Your task to perform on an android device: toggle show notifications on the lock screen Image 0: 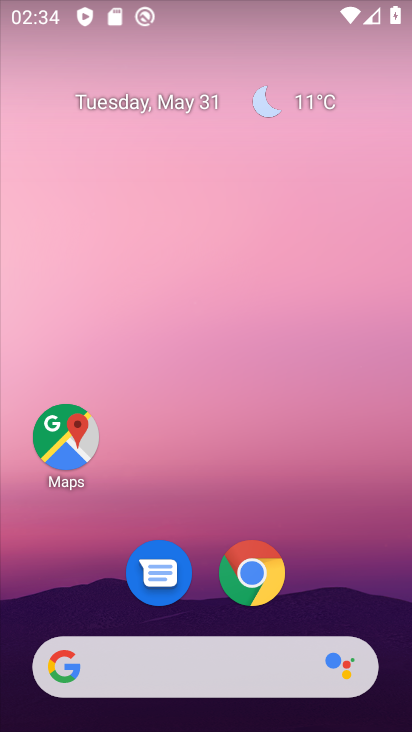
Step 0: drag from (376, 610) to (302, 127)
Your task to perform on an android device: toggle show notifications on the lock screen Image 1: 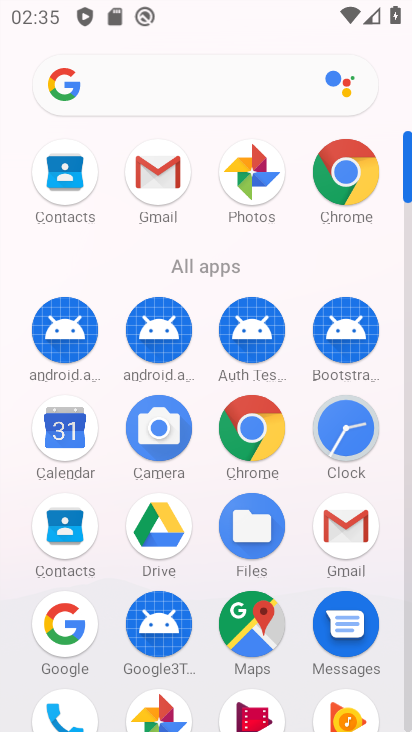
Step 1: click (407, 659)
Your task to perform on an android device: toggle show notifications on the lock screen Image 2: 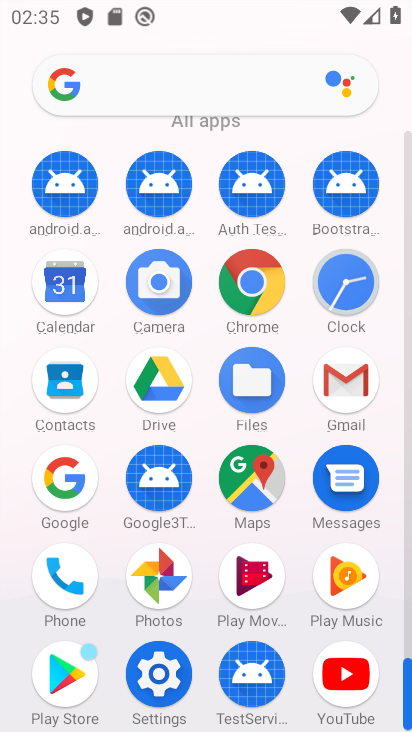
Step 2: click (166, 685)
Your task to perform on an android device: toggle show notifications on the lock screen Image 3: 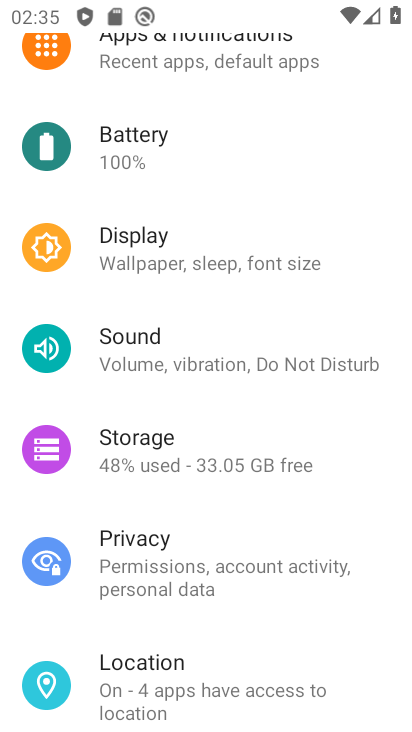
Step 3: click (228, 53)
Your task to perform on an android device: toggle show notifications on the lock screen Image 4: 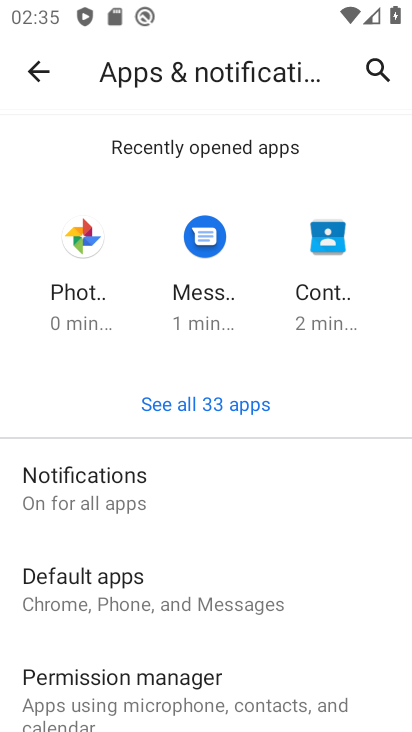
Step 4: click (249, 473)
Your task to perform on an android device: toggle show notifications on the lock screen Image 5: 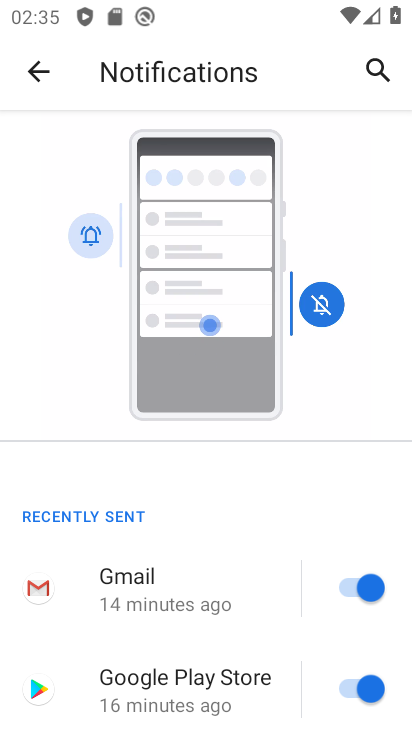
Step 5: drag from (269, 669) to (232, 63)
Your task to perform on an android device: toggle show notifications on the lock screen Image 6: 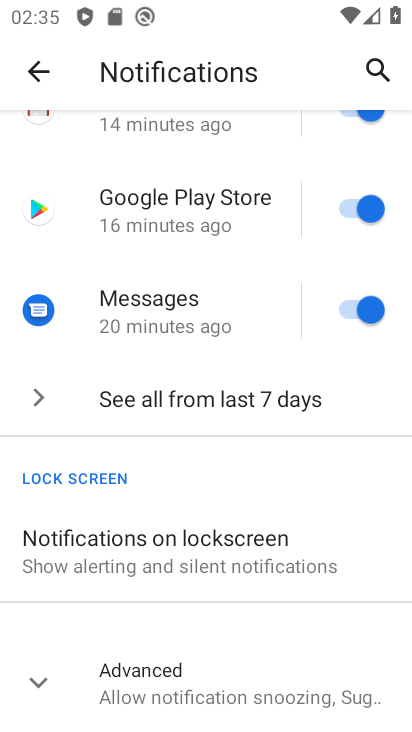
Step 6: drag from (252, 502) to (228, 259)
Your task to perform on an android device: toggle show notifications on the lock screen Image 7: 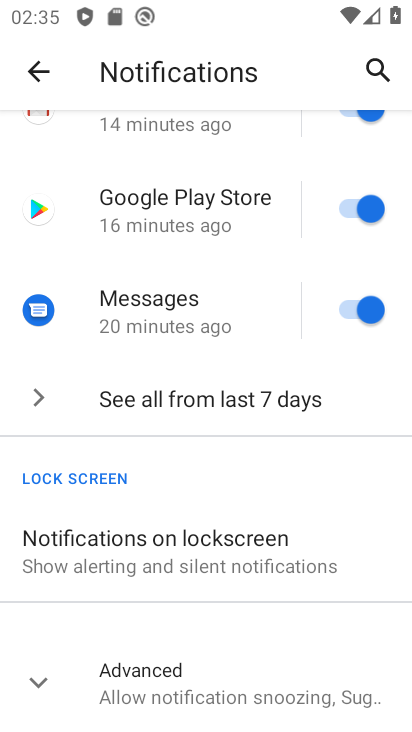
Step 7: click (262, 541)
Your task to perform on an android device: toggle show notifications on the lock screen Image 8: 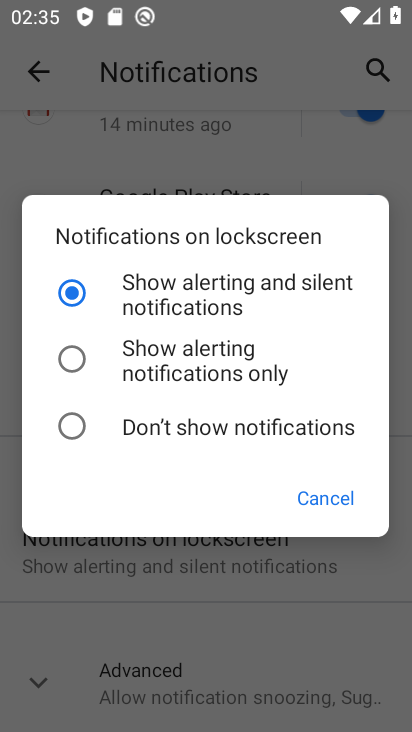
Step 8: click (207, 357)
Your task to perform on an android device: toggle show notifications on the lock screen Image 9: 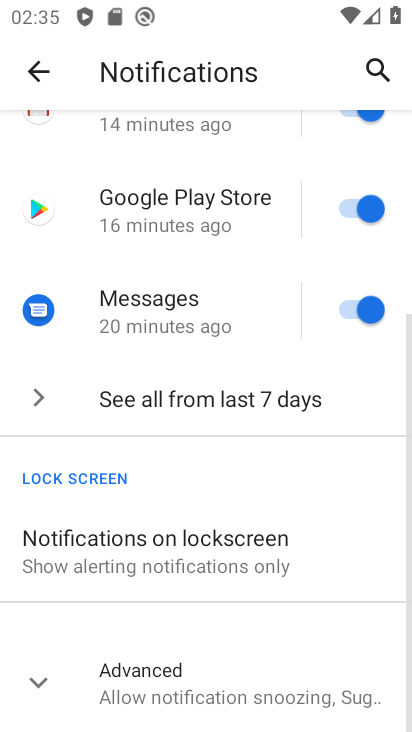
Step 9: task complete